Your task to perform on an android device: Open Reddit.com Image 0: 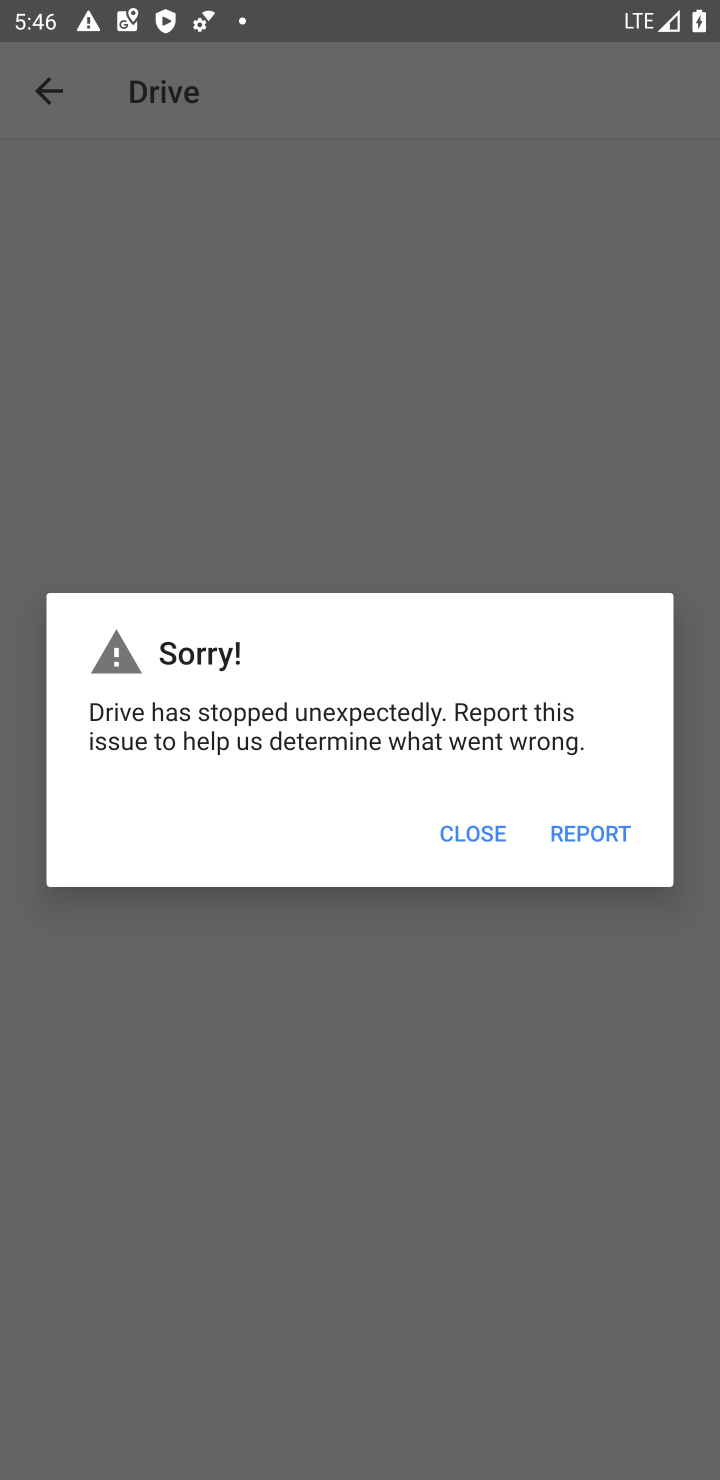
Step 0: press home button
Your task to perform on an android device: Open Reddit.com Image 1: 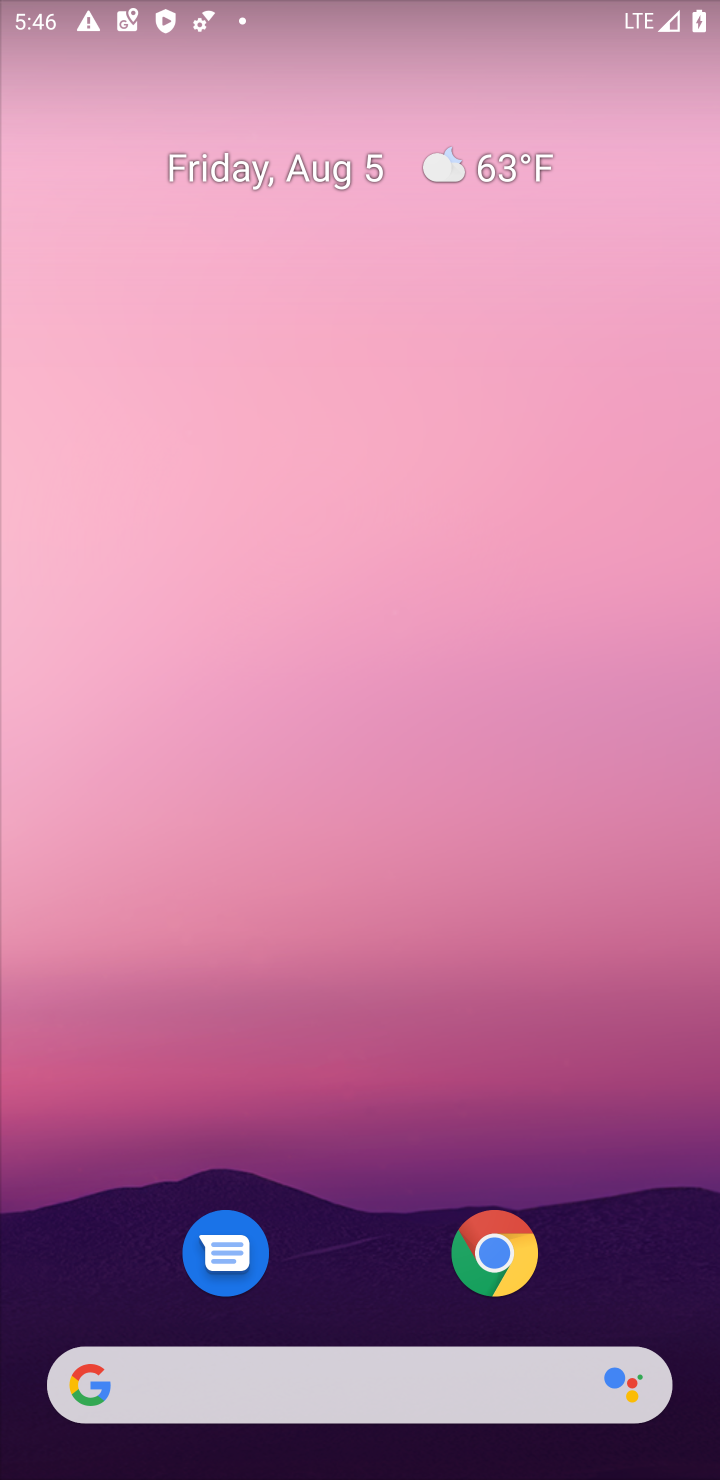
Step 1: click (487, 1228)
Your task to perform on an android device: Open Reddit.com Image 2: 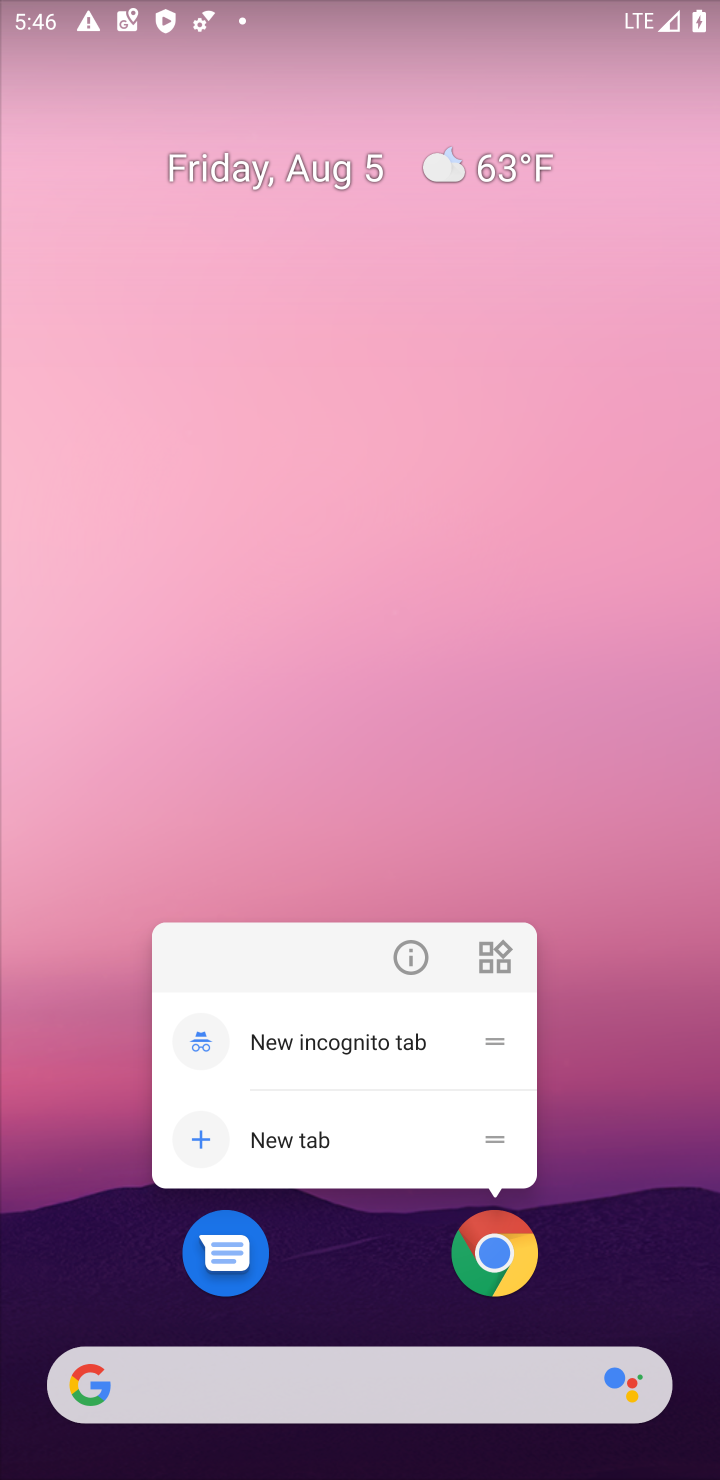
Step 2: click (495, 1246)
Your task to perform on an android device: Open Reddit.com Image 3: 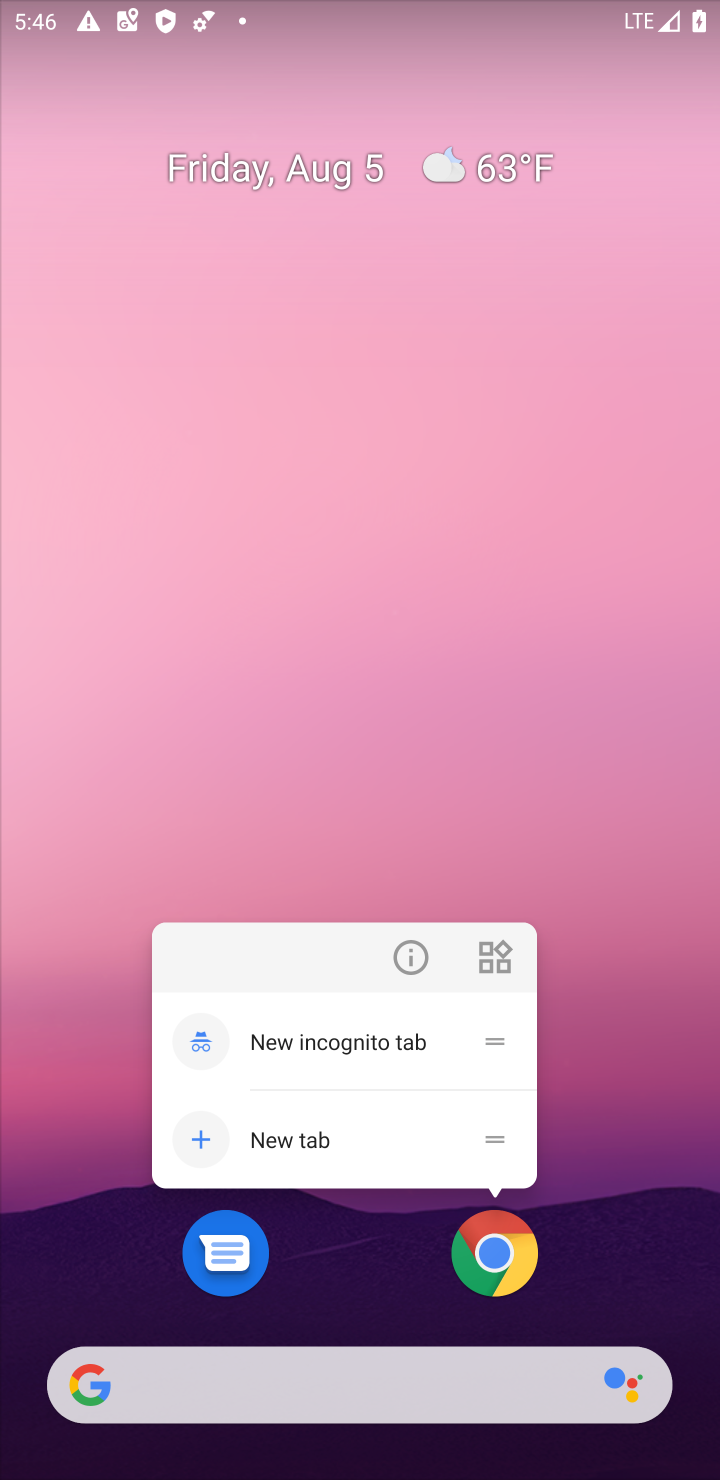
Step 3: click (495, 1246)
Your task to perform on an android device: Open Reddit.com Image 4: 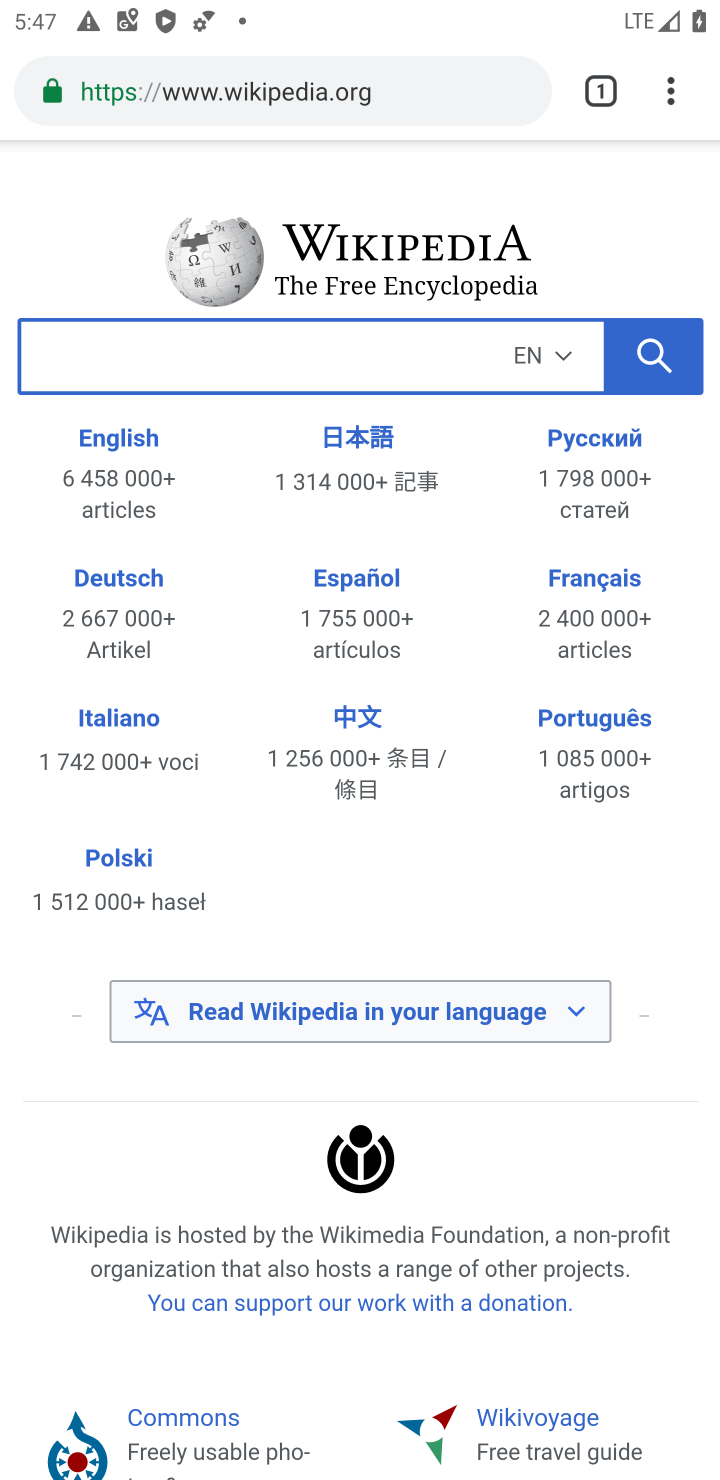
Step 4: click (159, 192)
Your task to perform on an android device: Open Reddit.com Image 5: 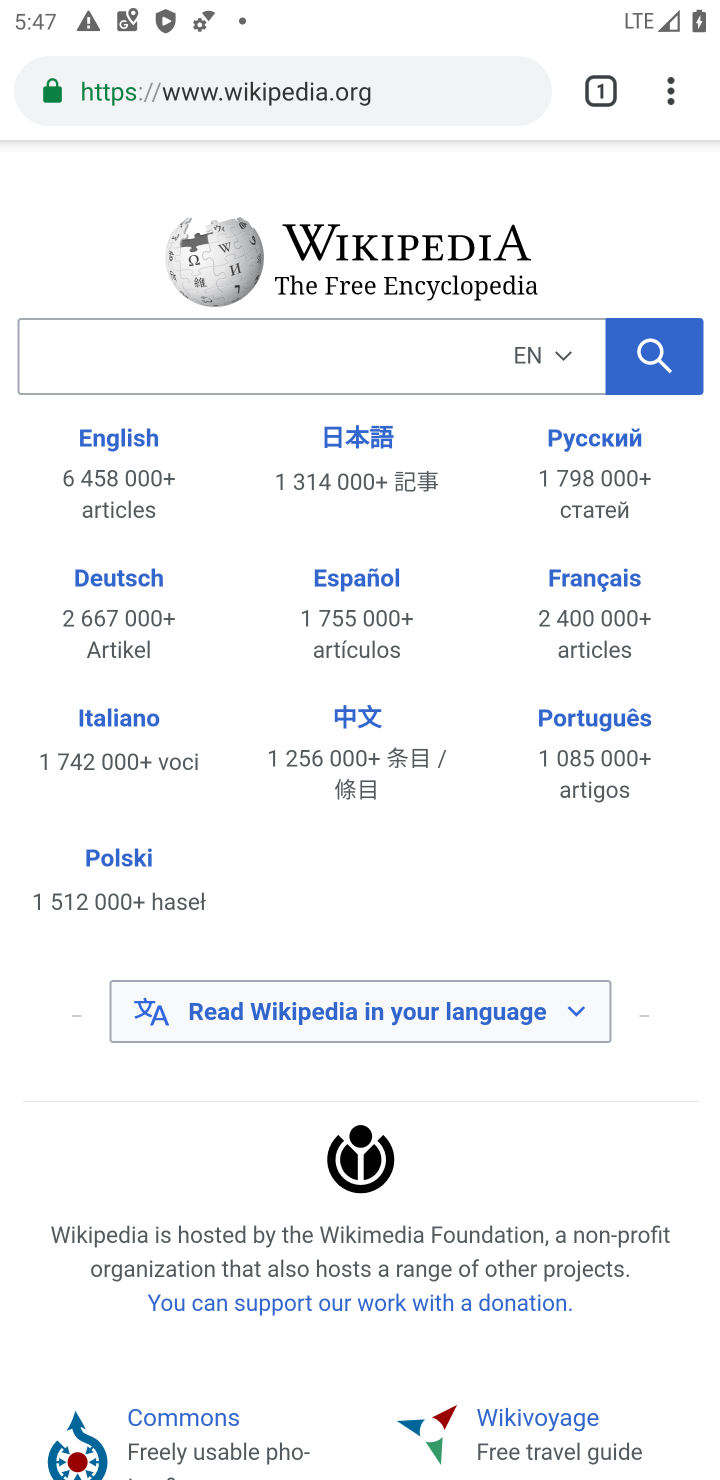
Step 5: click (285, 87)
Your task to perform on an android device: Open Reddit.com Image 6: 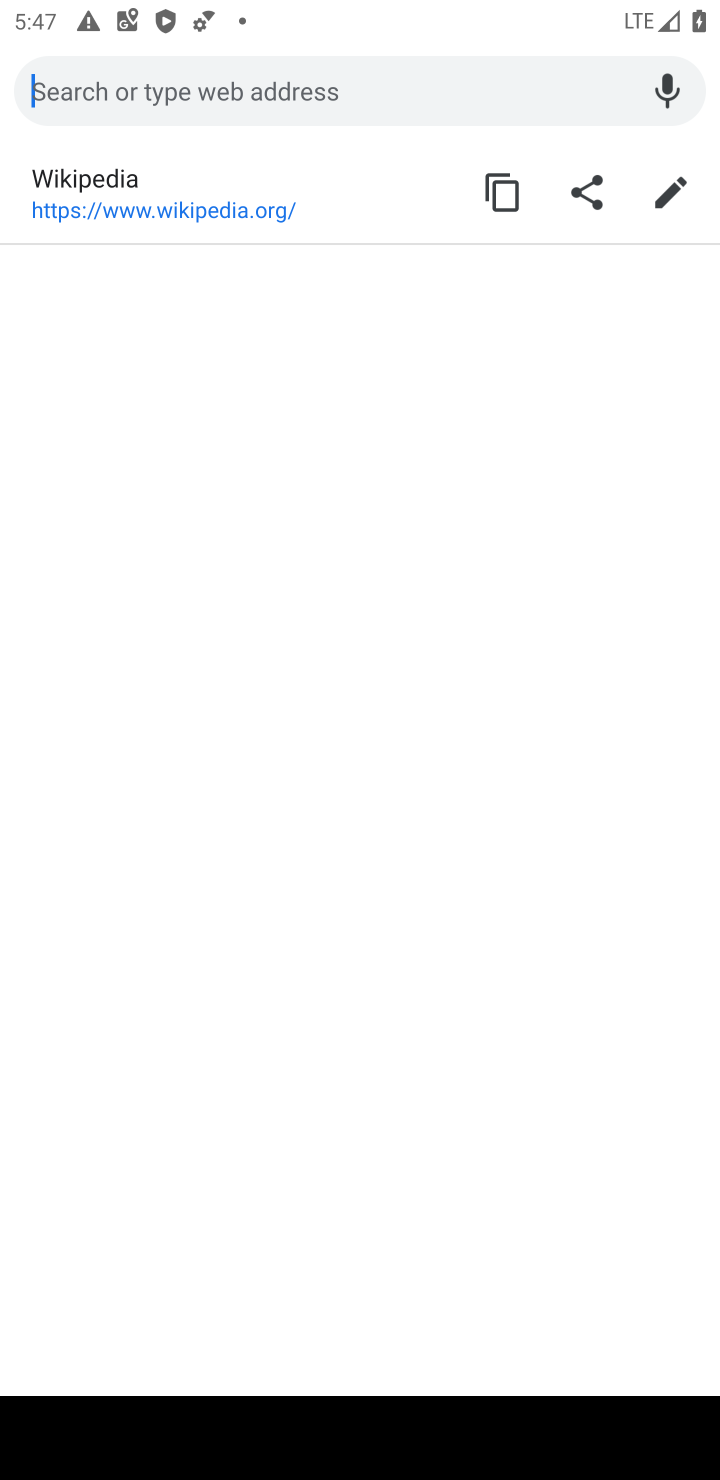
Step 6: type "reddit.com"
Your task to perform on an android device: Open Reddit.com Image 7: 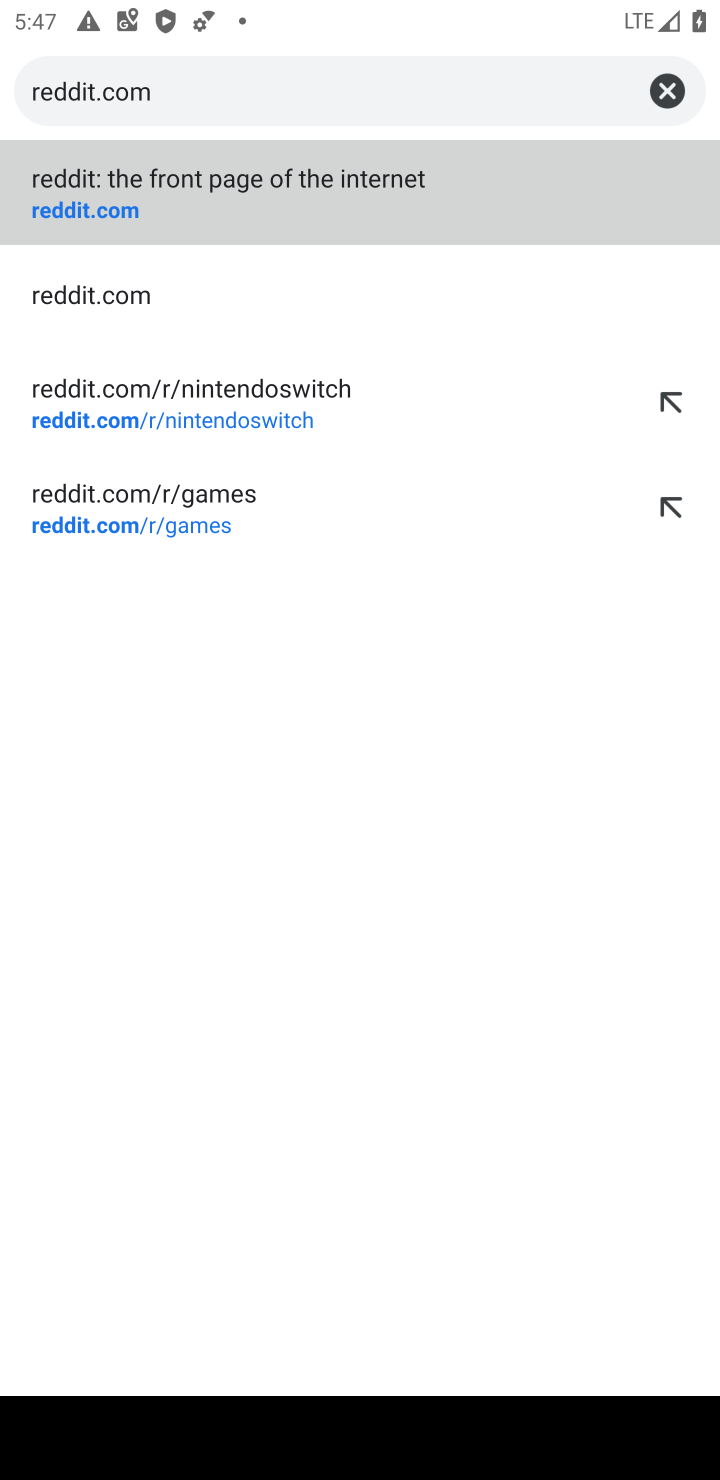
Step 7: click (243, 201)
Your task to perform on an android device: Open Reddit.com Image 8: 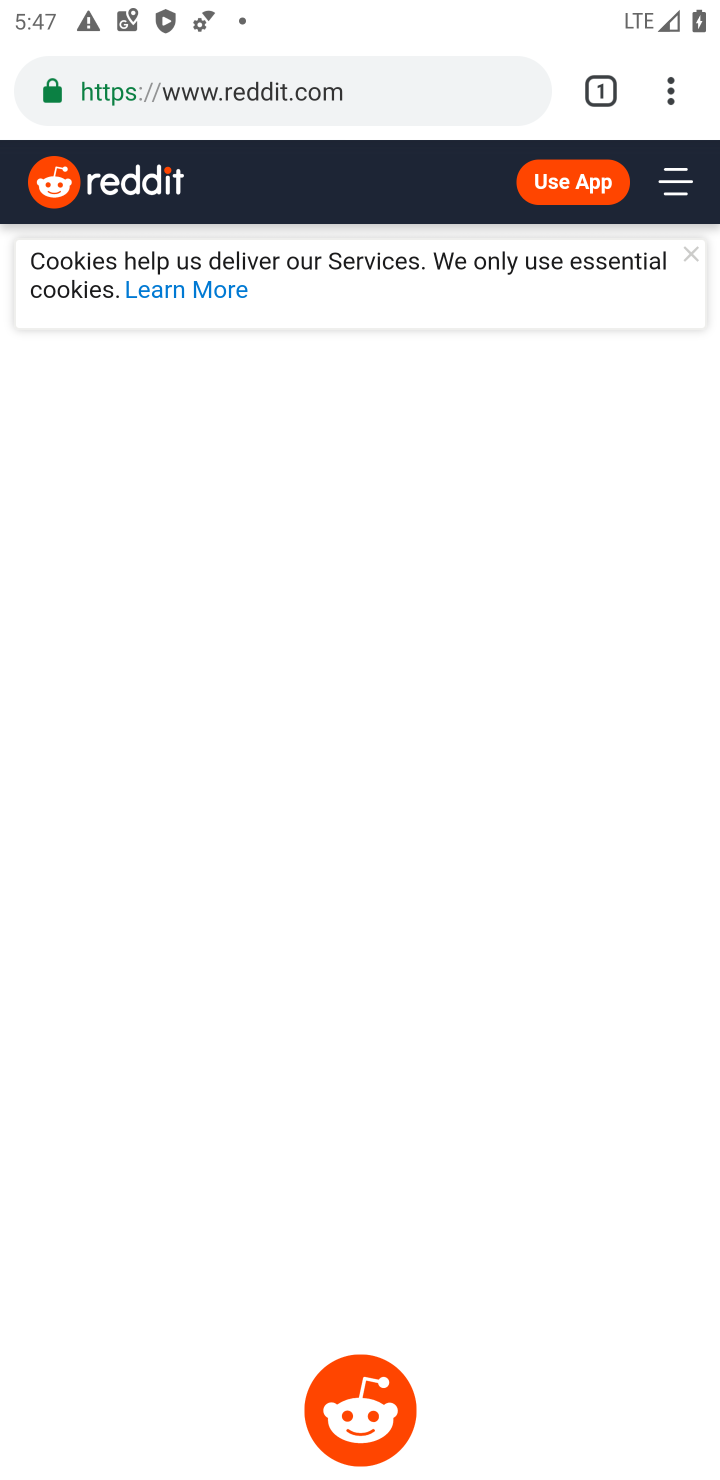
Step 8: task complete